Your task to perform on an android device: clear all cookies in the chrome app Image 0: 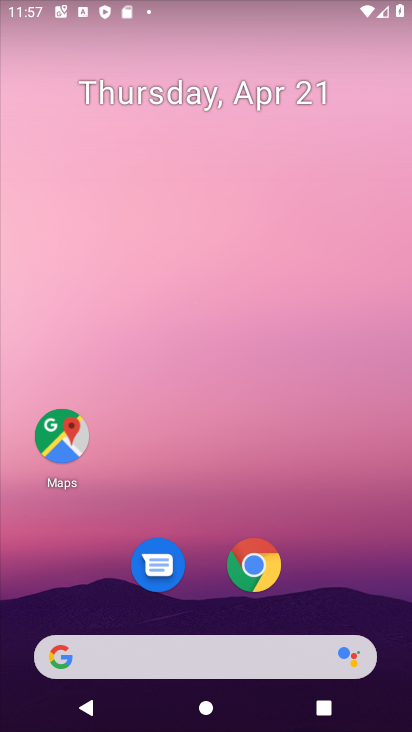
Step 0: click (256, 567)
Your task to perform on an android device: clear all cookies in the chrome app Image 1: 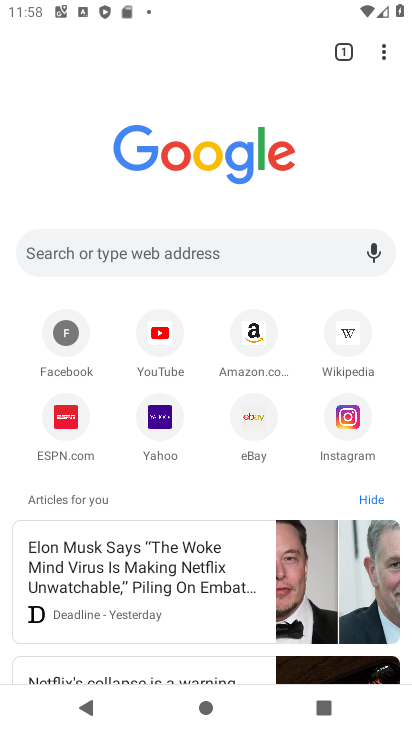
Step 1: click (389, 49)
Your task to perform on an android device: clear all cookies in the chrome app Image 2: 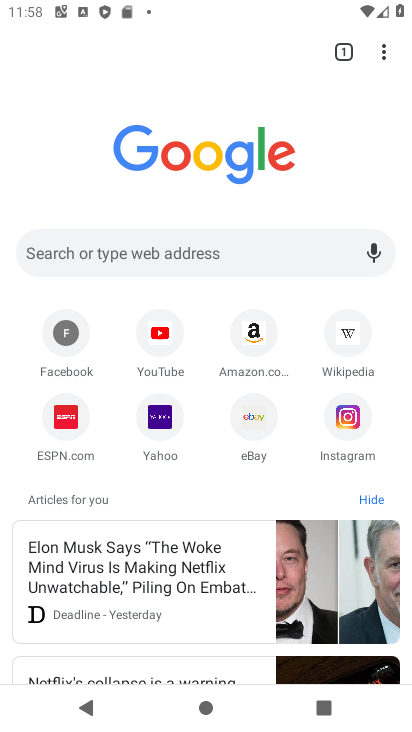
Step 2: click (382, 51)
Your task to perform on an android device: clear all cookies in the chrome app Image 3: 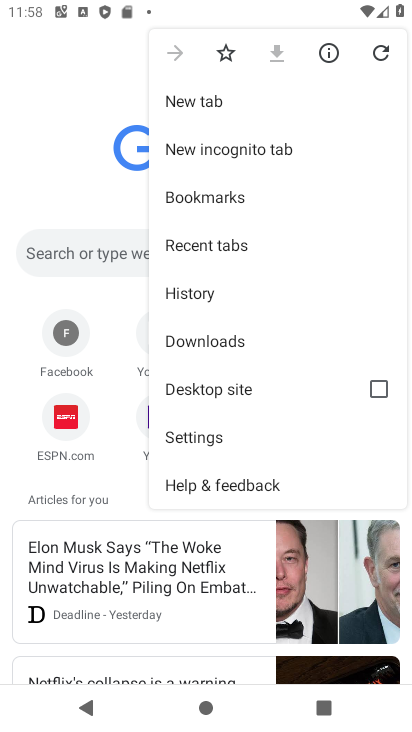
Step 3: click (207, 300)
Your task to perform on an android device: clear all cookies in the chrome app Image 4: 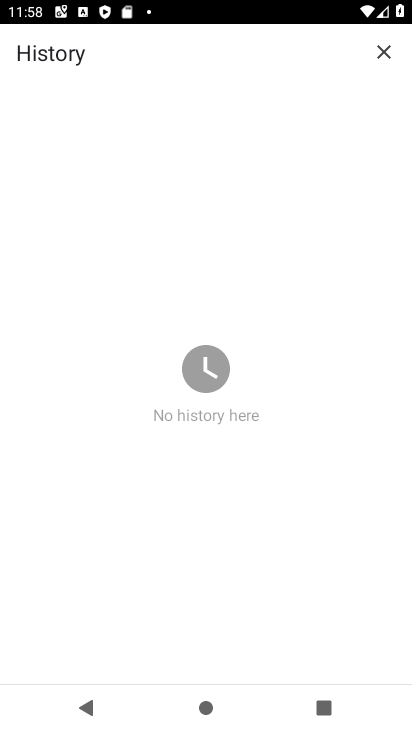
Step 4: task complete